Your task to perform on an android device: turn off smart reply in the gmail app Image 0: 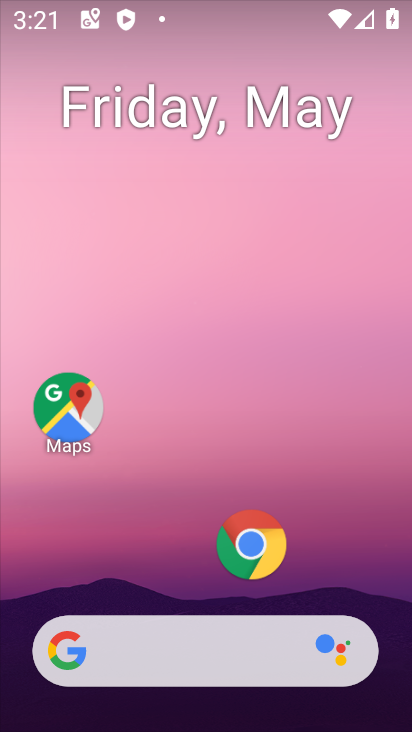
Step 0: drag from (178, 561) to (198, 235)
Your task to perform on an android device: turn off smart reply in the gmail app Image 1: 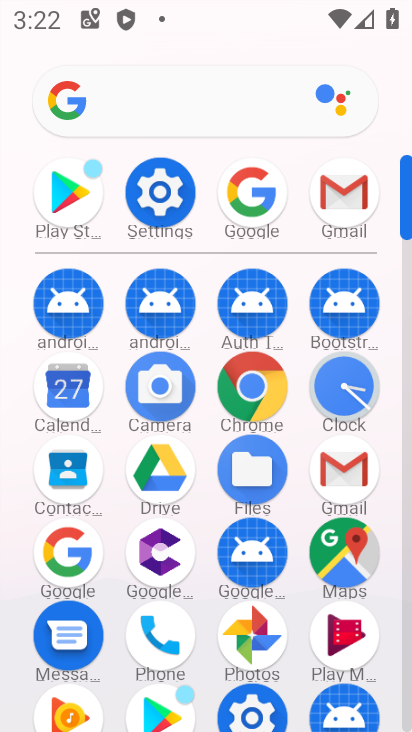
Step 1: click (337, 204)
Your task to perform on an android device: turn off smart reply in the gmail app Image 2: 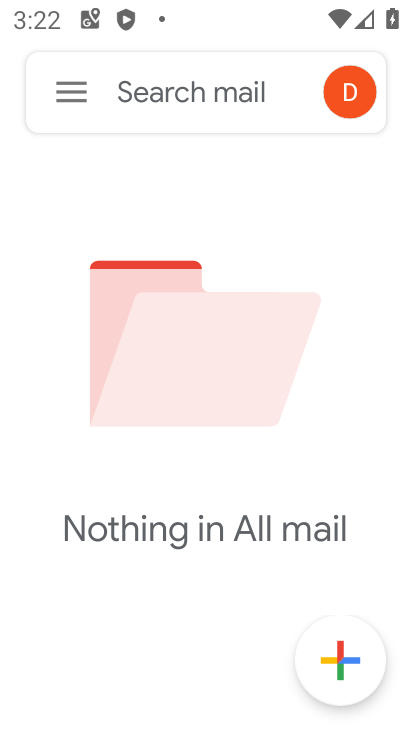
Step 2: click (79, 102)
Your task to perform on an android device: turn off smart reply in the gmail app Image 3: 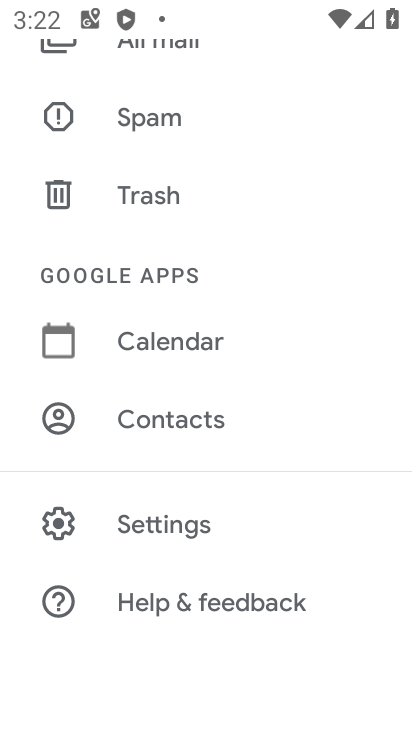
Step 3: click (181, 507)
Your task to perform on an android device: turn off smart reply in the gmail app Image 4: 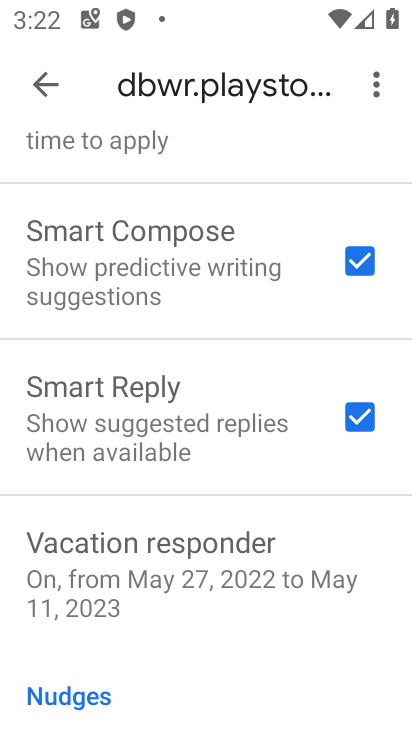
Step 4: click (356, 410)
Your task to perform on an android device: turn off smart reply in the gmail app Image 5: 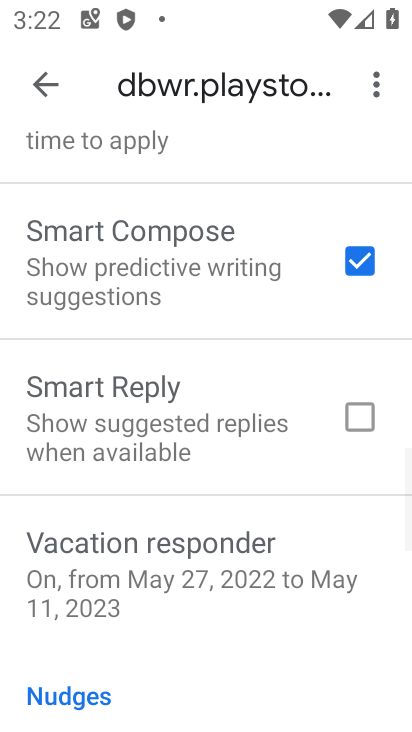
Step 5: task complete